Your task to perform on an android device: Open wifi settings Image 0: 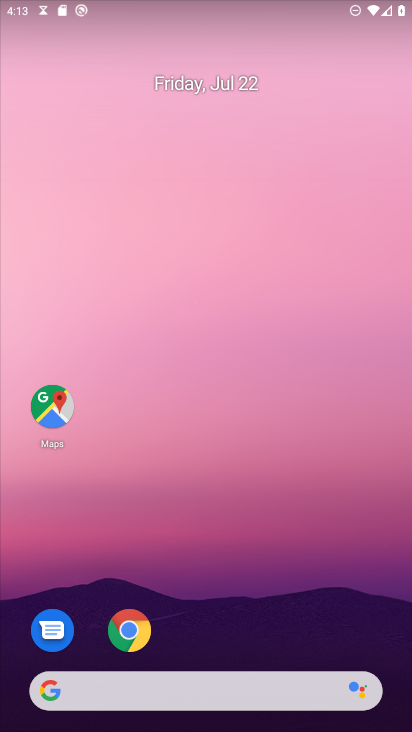
Step 0: drag from (217, 628) to (297, 7)
Your task to perform on an android device: Open wifi settings Image 1: 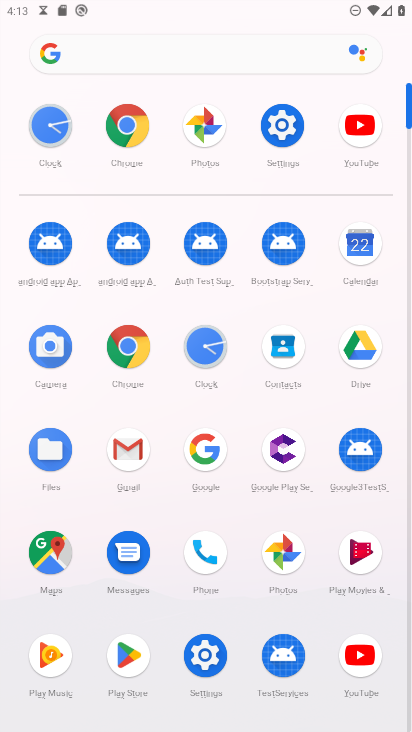
Step 1: click (287, 149)
Your task to perform on an android device: Open wifi settings Image 2: 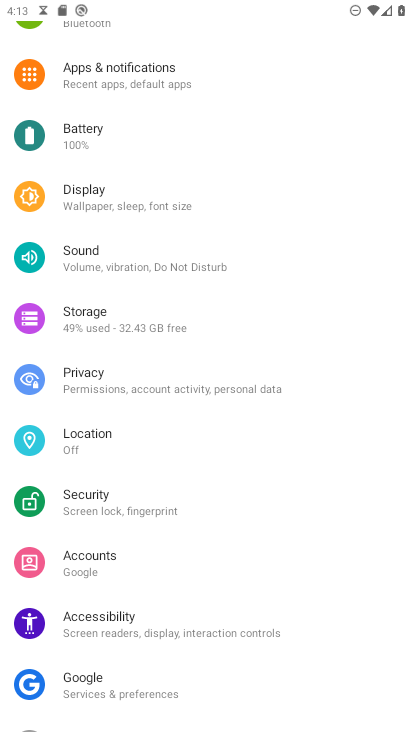
Step 2: drag from (148, 162) to (147, 606)
Your task to perform on an android device: Open wifi settings Image 3: 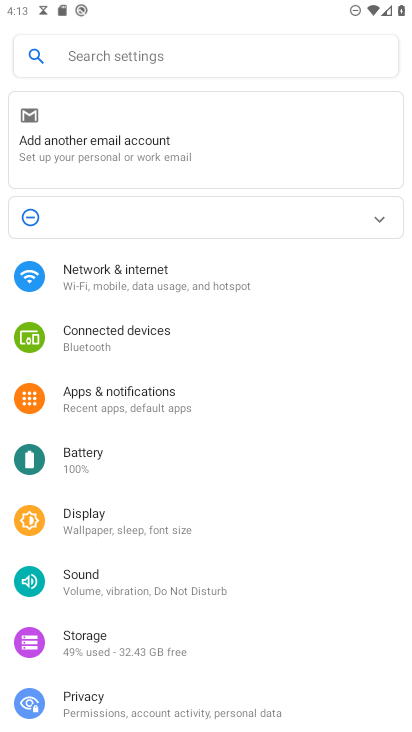
Step 3: click (128, 271)
Your task to perform on an android device: Open wifi settings Image 4: 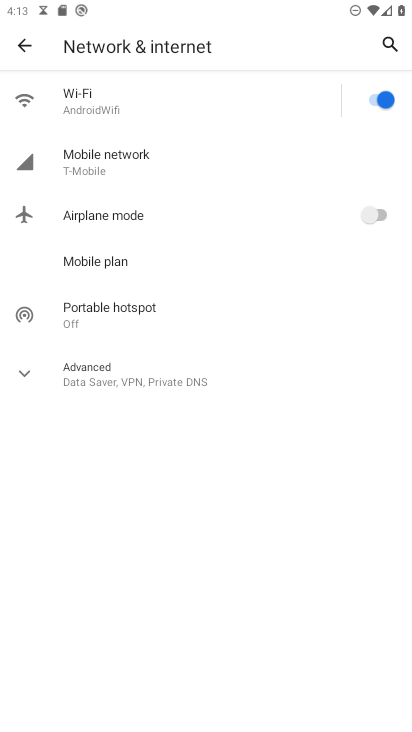
Step 4: click (95, 100)
Your task to perform on an android device: Open wifi settings Image 5: 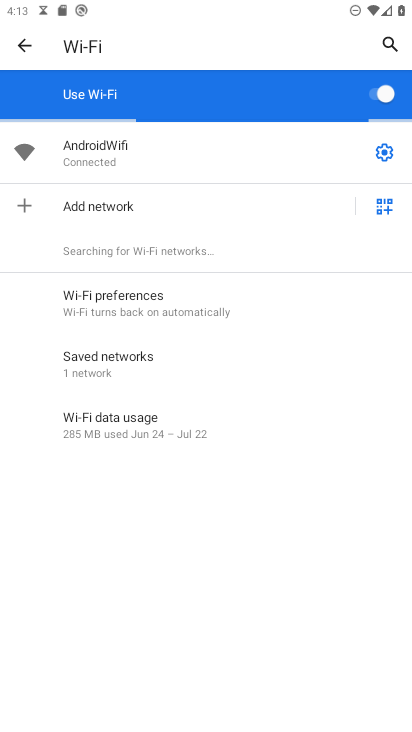
Step 5: task complete